Your task to perform on an android device: toggle airplane mode Image 0: 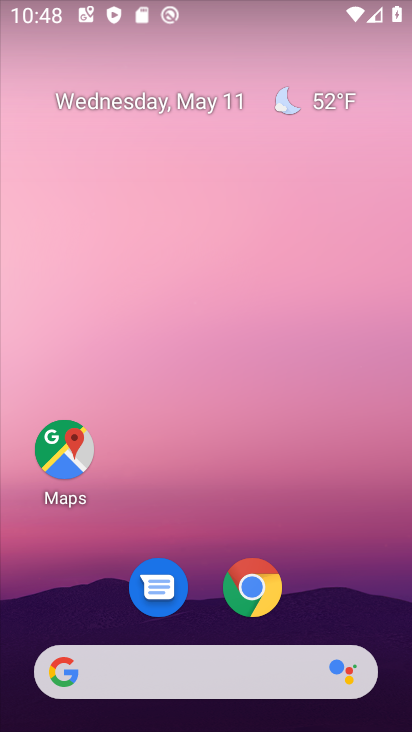
Step 0: drag from (163, 688) to (404, 34)
Your task to perform on an android device: toggle airplane mode Image 1: 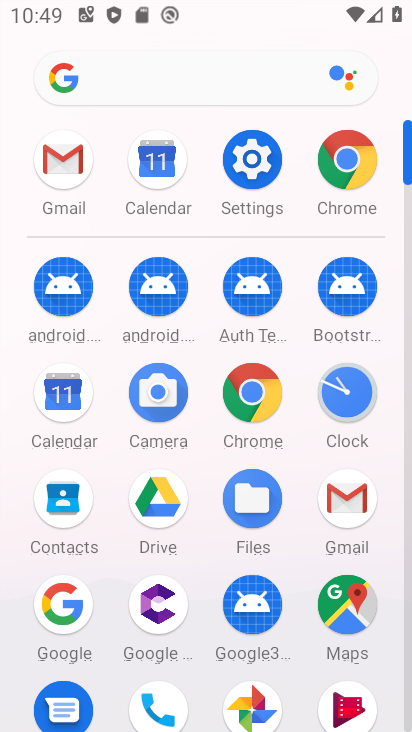
Step 1: click (262, 169)
Your task to perform on an android device: toggle airplane mode Image 2: 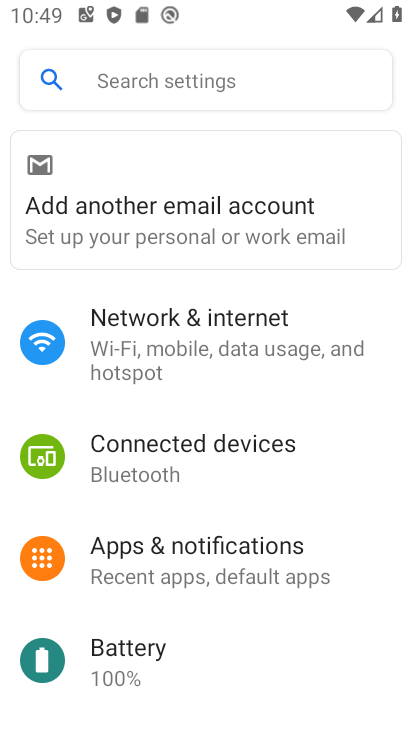
Step 2: click (186, 335)
Your task to perform on an android device: toggle airplane mode Image 3: 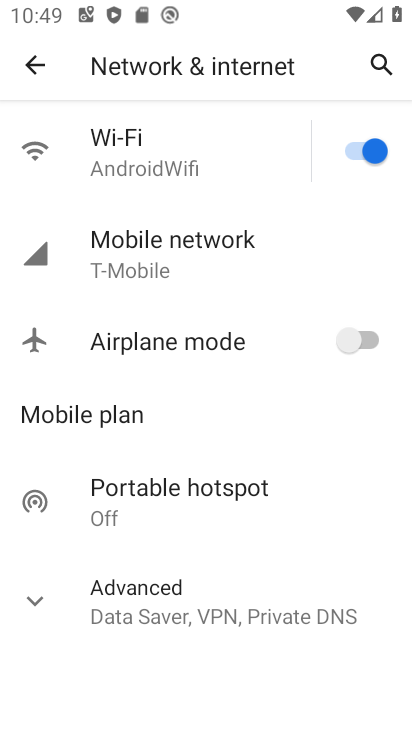
Step 3: task complete